Your task to perform on an android device: Go to Maps Image 0: 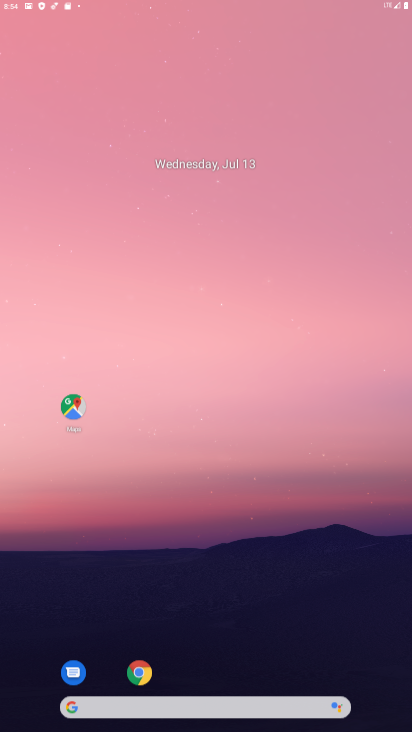
Step 0: click (270, 191)
Your task to perform on an android device: Go to Maps Image 1: 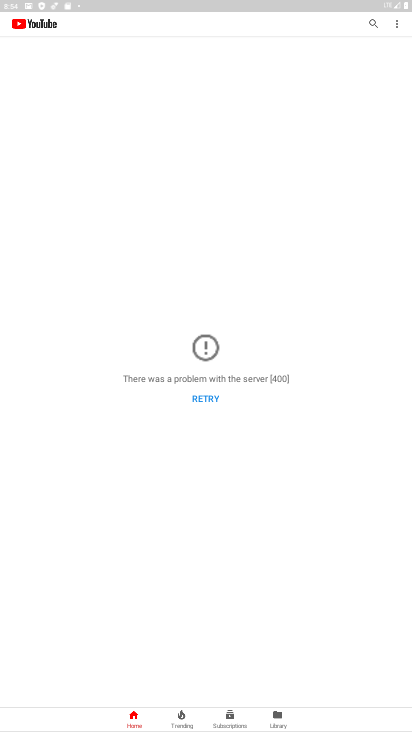
Step 1: drag from (227, 577) to (260, 191)
Your task to perform on an android device: Go to Maps Image 2: 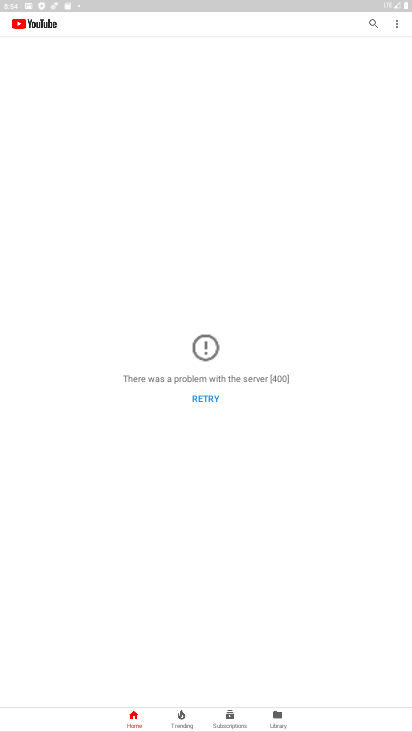
Step 2: drag from (222, 529) to (229, 280)
Your task to perform on an android device: Go to Maps Image 3: 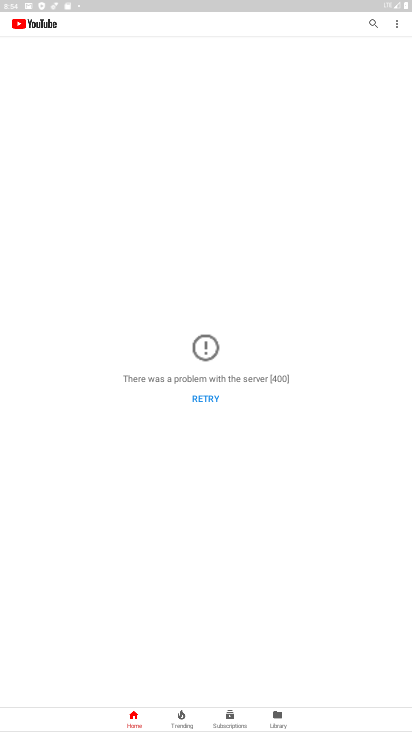
Step 3: drag from (208, 461) to (218, 225)
Your task to perform on an android device: Go to Maps Image 4: 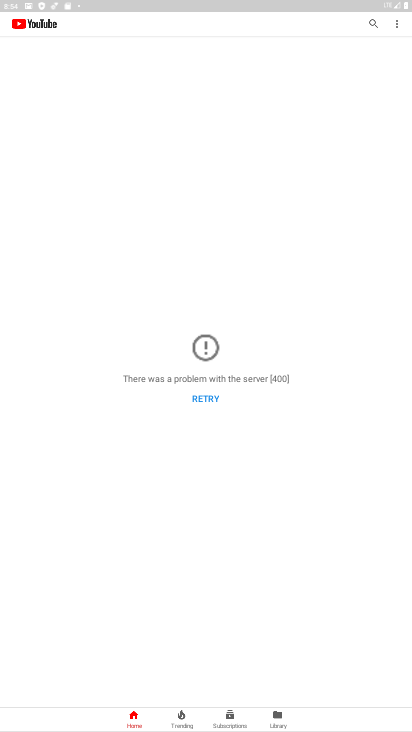
Step 4: drag from (233, 458) to (244, 403)
Your task to perform on an android device: Go to Maps Image 5: 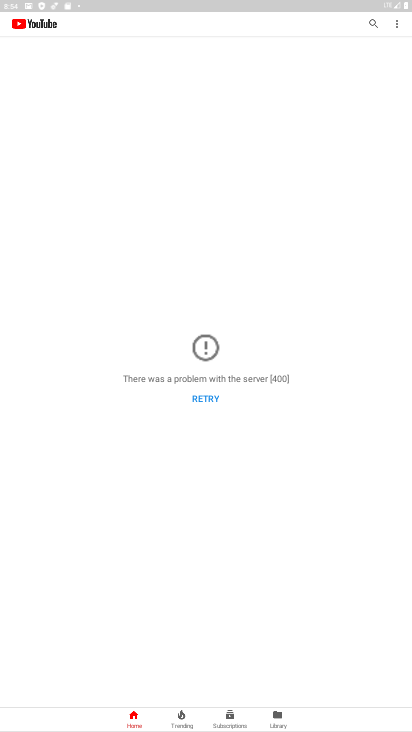
Step 5: press home button
Your task to perform on an android device: Go to Maps Image 6: 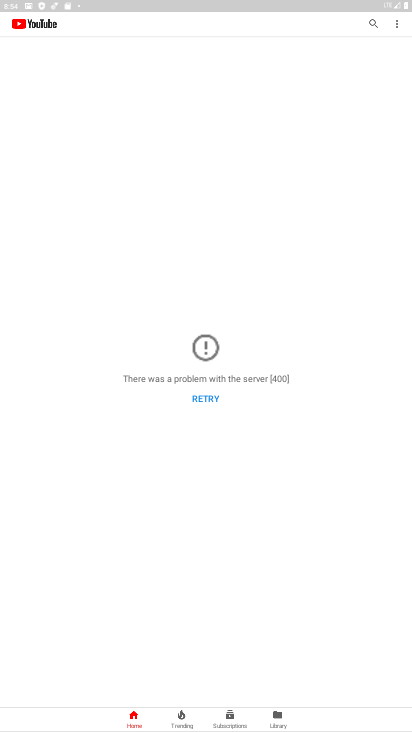
Step 6: press home button
Your task to perform on an android device: Go to Maps Image 7: 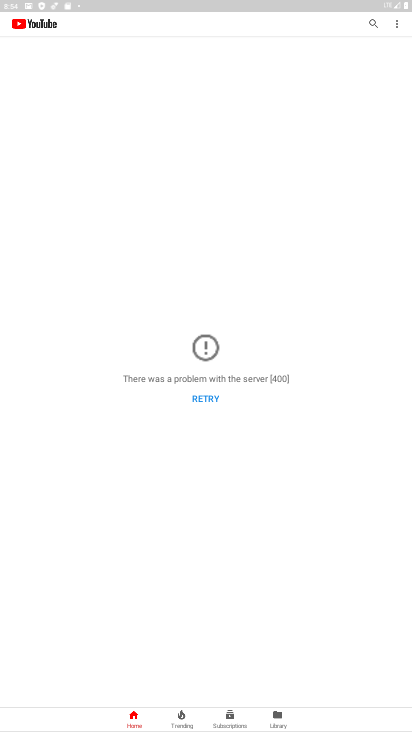
Step 7: drag from (257, 467) to (276, 258)
Your task to perform on an android device: Go to Maps Image 8: 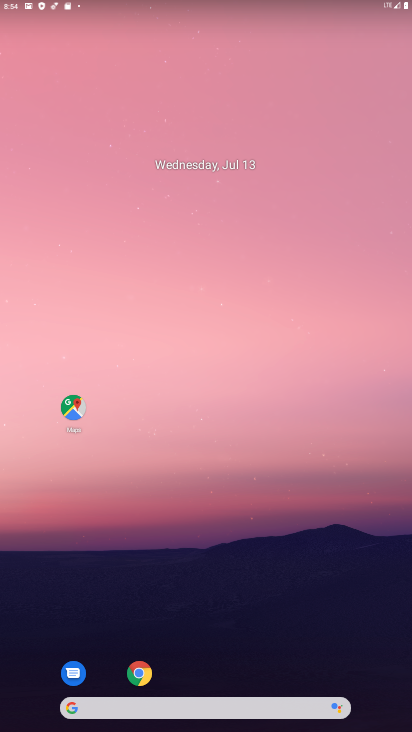
Step 8: drag from (203, 562) to (263, 122)
Your task to perform on an android device: Go to Maps Image 9: 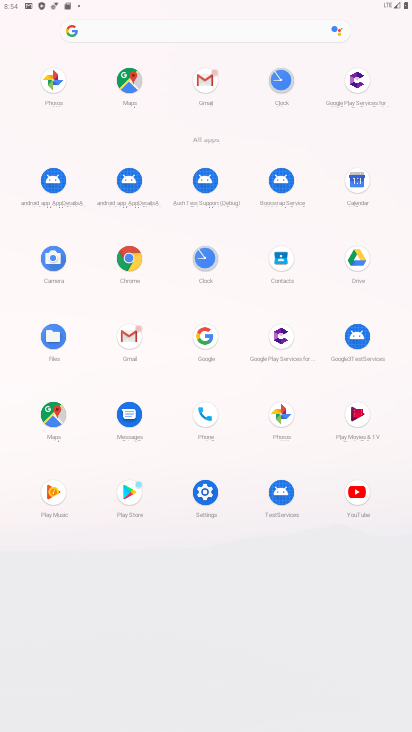
Step 9: click (52, 409)
Your task to perform on an android device: Go to Maps Image 10: 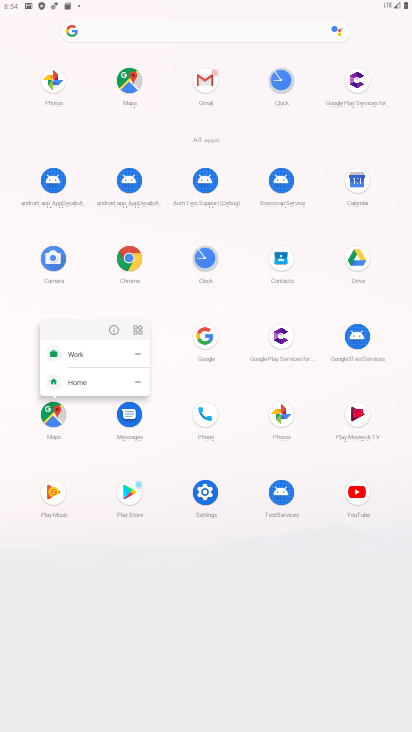
Step 10: click (114, 333)
Your task to perform on an android device: Go to Maps Image 11: 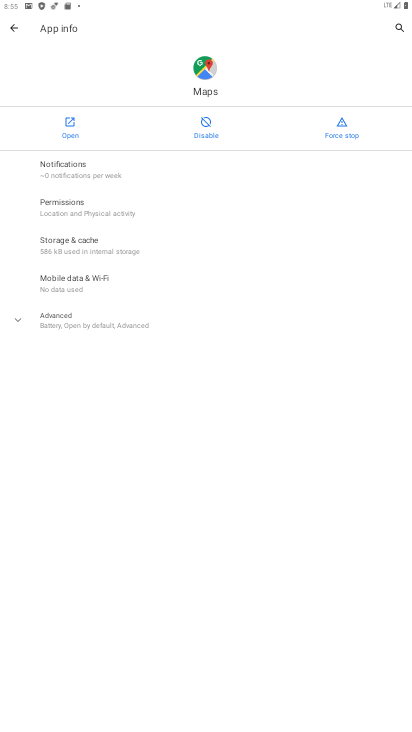
Step 11: click (63, 120)
Your task to perform on an android device: Go to Maps Image 12: 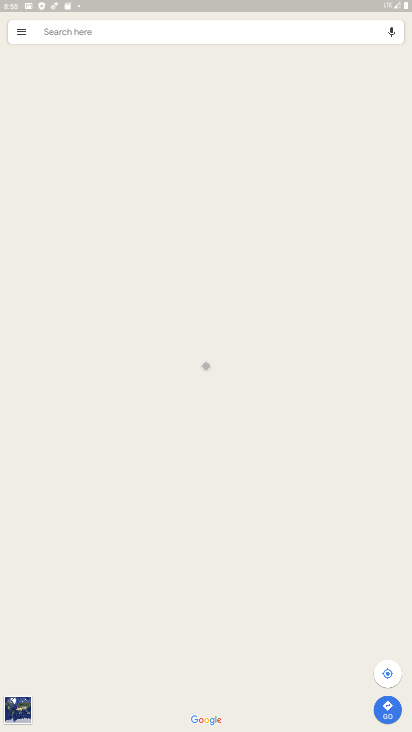
Step 12: task complete